Your task to perform on an android device: turn off location Image 0: 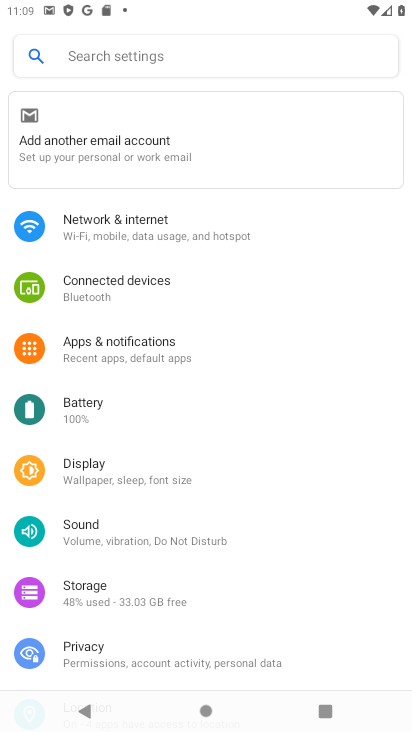
Step 0: drag from (163, 633) to (243, 297)
Your task to perform on an android device: turn off location Image 1: 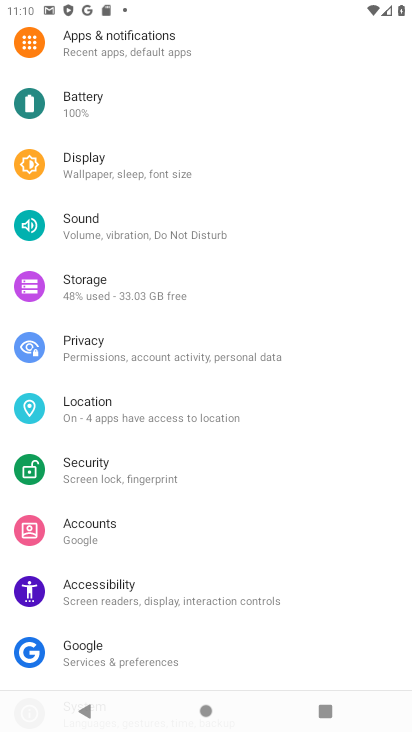
Step 1: click (85, 415)
Your task to perform on an android device: turn off location Image 2: 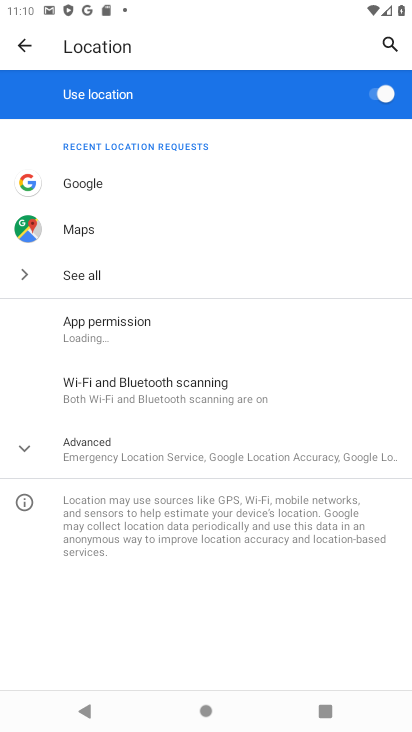
Step 2: drag from (198, 604) to (283, 328)
Your task to perform on an android device: turn off location Image 3: 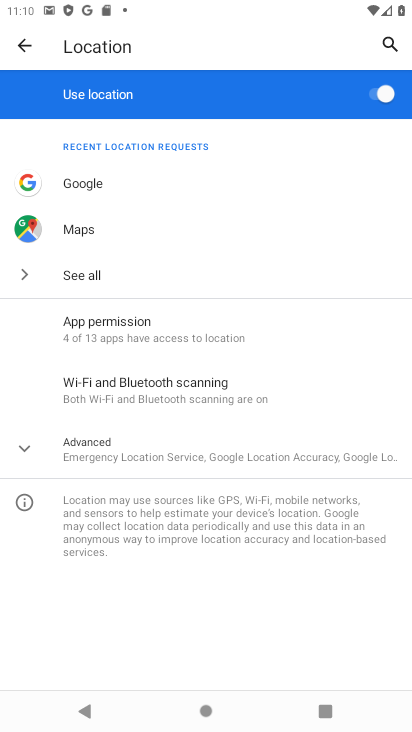
Step 3: click (92, 451)
Your task to perform on an android device: turn off location Image 4: 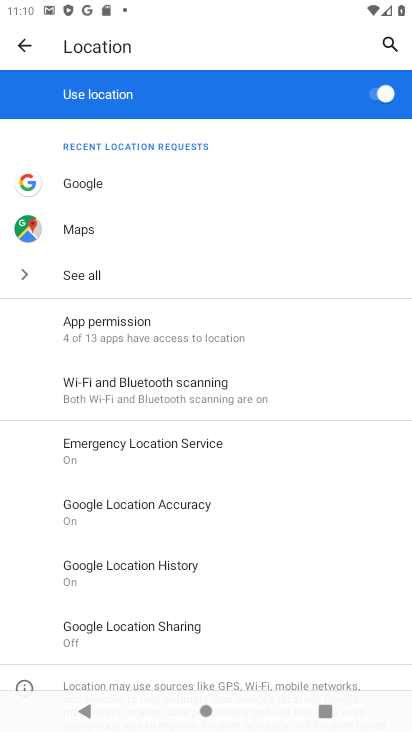
Step 4: click (393, 76)
Your task to perform on an android device: turn off location Image 5: 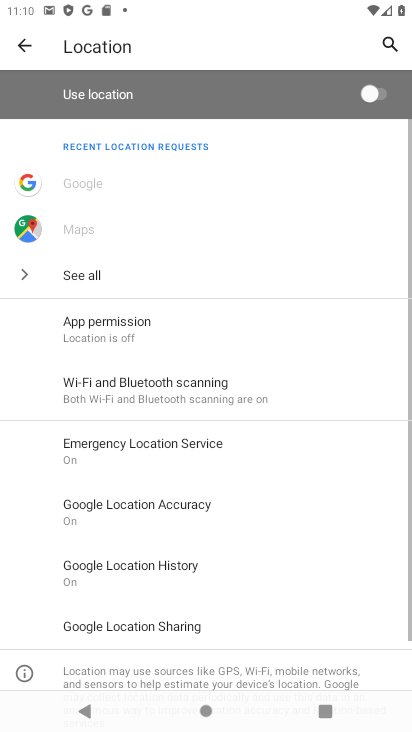
Step 5: task complete